Your task to perform on an android device: Open calendar and show me the third week of next month Image 0: 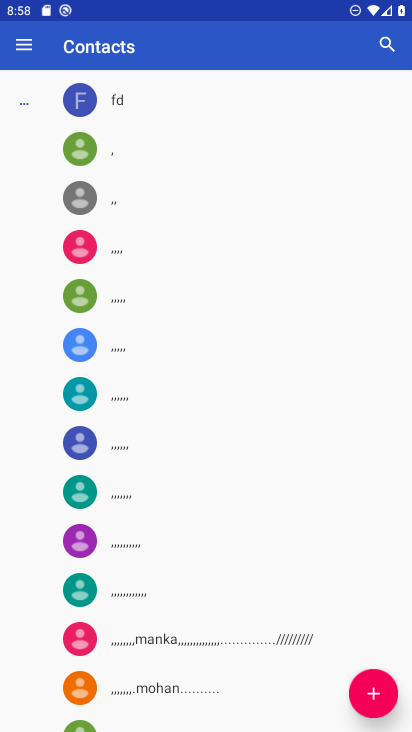
Step 0: press home button
Your task to perform on an android device: Open calendar and show me the third week of next month Image 1: 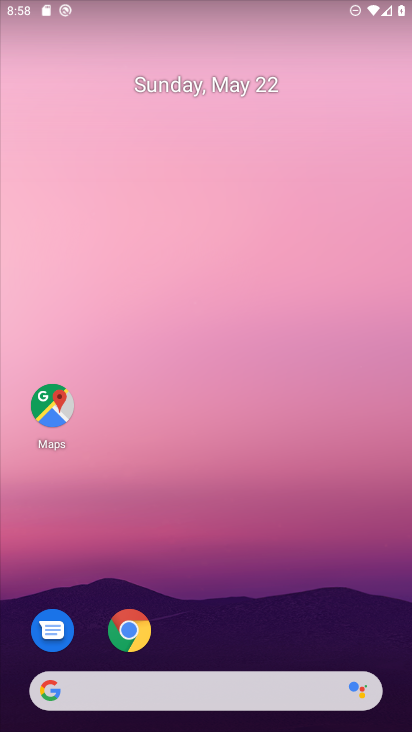
Step 1: drag from (230, 214) to (268, 47)
Your task to perform on an android device: Open calendar and show me the third week of next month Image 2: 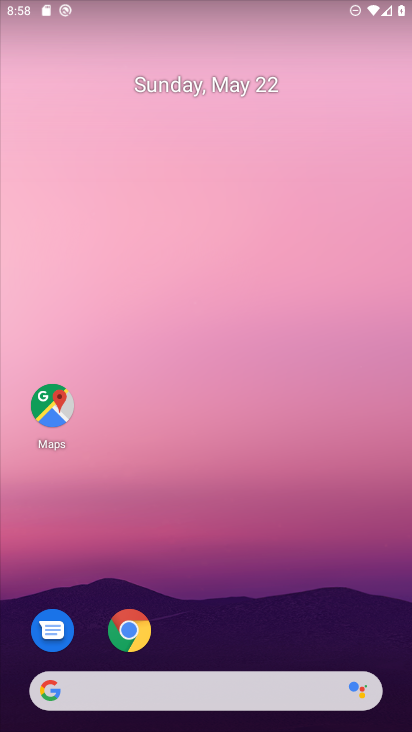
Step 2: drag from (227, 612) to (251, 55)
Your task to perform on an android device: Open calendar and show me the third week of next month Image 3: 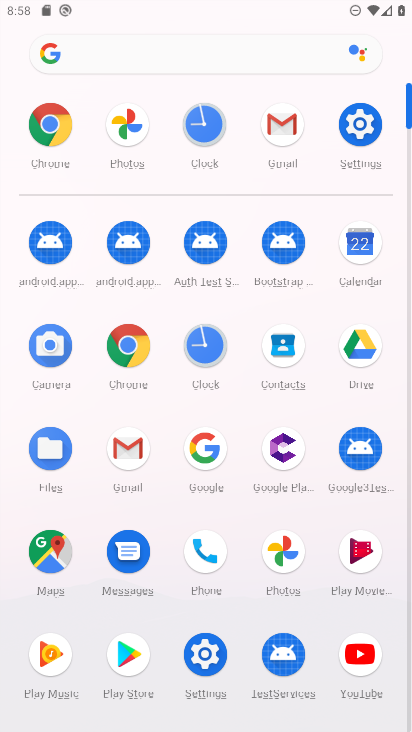
Step 3: click (347, 271)
Your task to perform on an android device: Open calendar and show me the third week of next month Image 4: 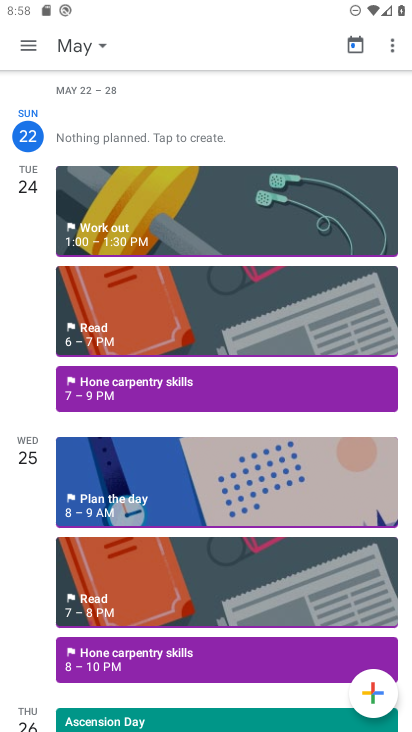
Step 4: click (100, 38)
Your task to perform on an android device: Open calendar and show me the third week of next month Image 5: 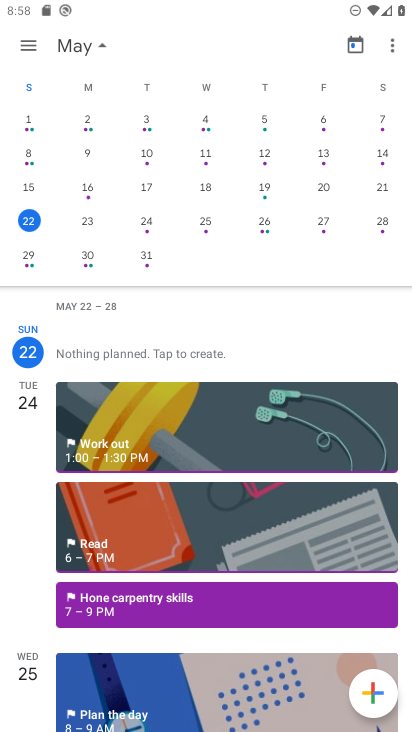
Step 5: drag from (407, 248) to (19, 198)
Your task to perform on an android device: Open calendar and show me the third week of next month Image 6: 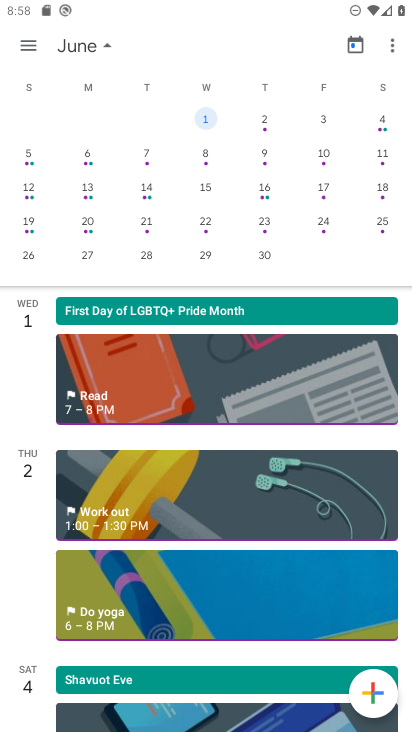
Step 6: click (156, 225)
Your task to perform on an android device: Open calendar and show me the third week of next month Image 7: 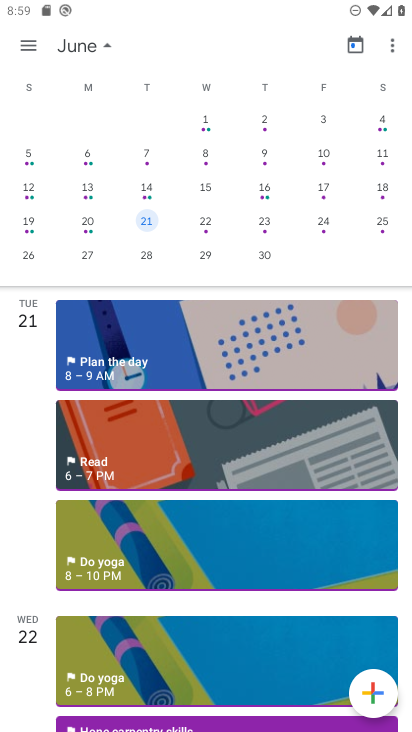
Step 7: task complete